Your task to perform on an android device: turn off notifications in google photos Image 0: 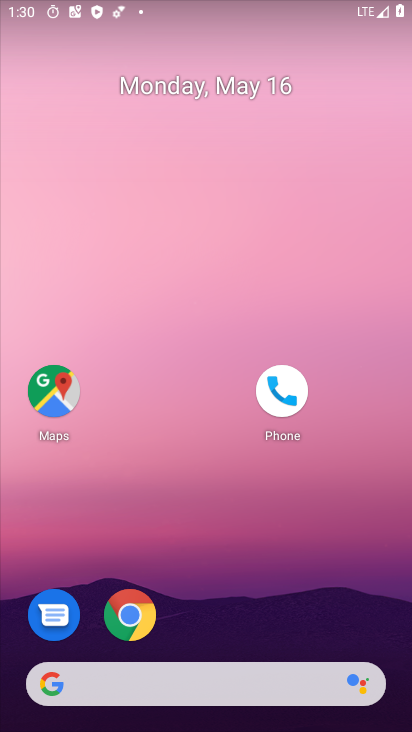
Step 0: drag from (170, 629) to (224, 89)
Your task to perform on an android device: turn off notifications in google photos Image 1: 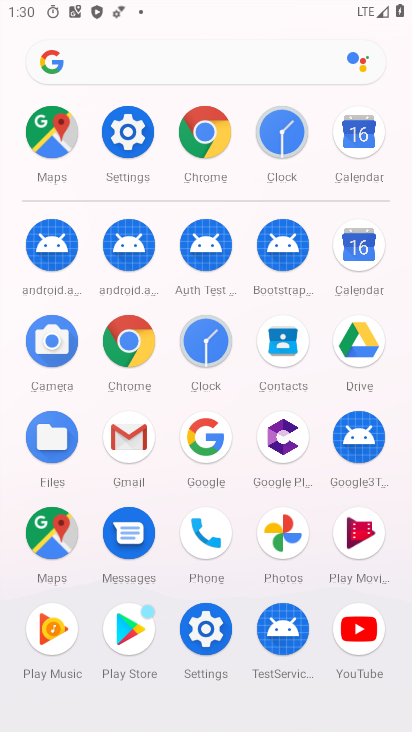
Step 1: click (291, 524)
Your task to perform on an android device: turn off notifications in google photos Image 2: 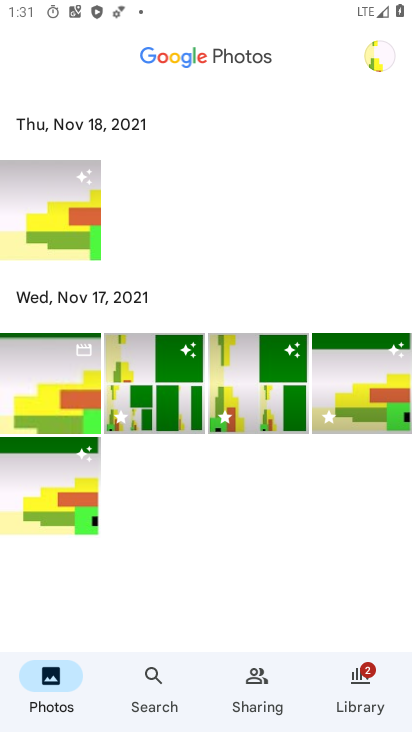
Step 2: drag from (137, 484) to (170, 440)
Your task to perform on an android device: turn off notifications in google photos Image 3: 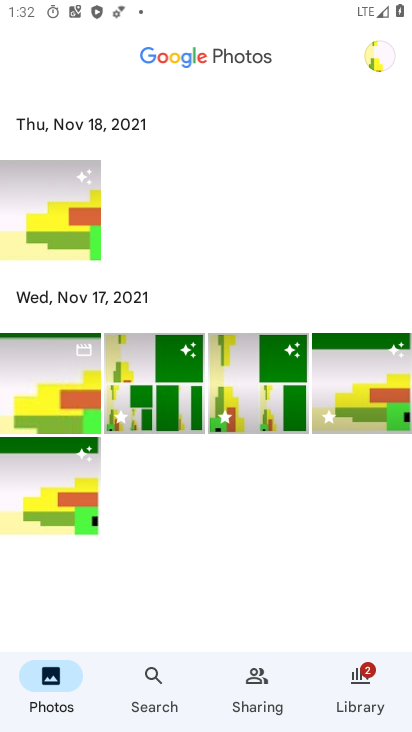
Step 3: click (380, 64)
Your task to perform on an android device: turn off notifications in google photos Image 4: 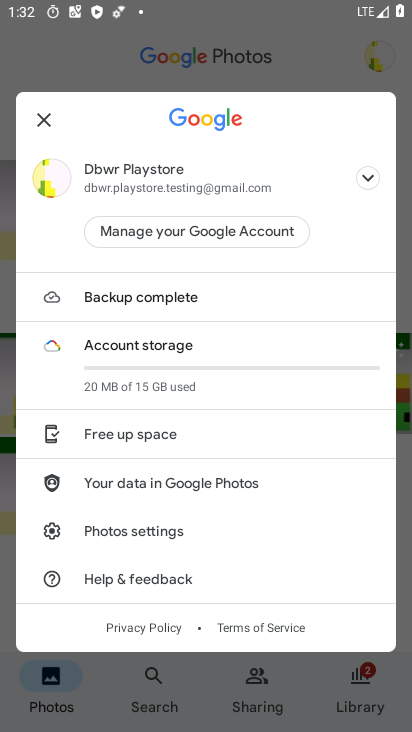
Step 4: click (245, 369)
Your task to perform on an android device: turn off notifications in google photos Image 5: 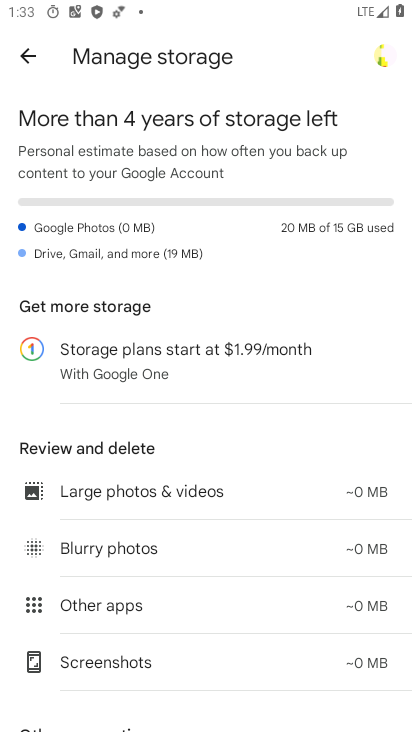
Step 5: drag from (230, 681) to (259, 345)
Your task to perform on an android device: turn off notifications in google photos Image 6: 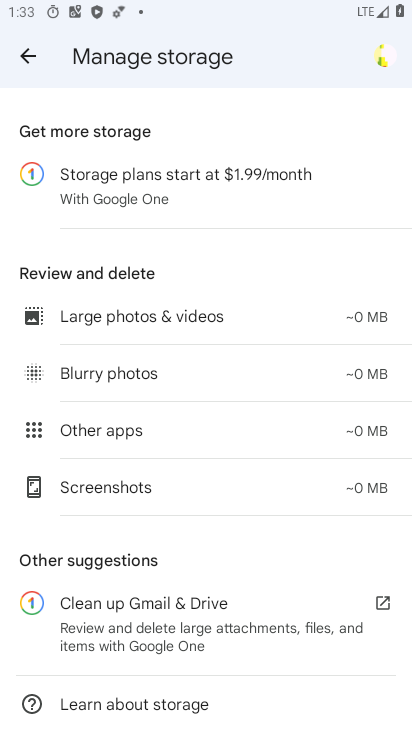
Step 6: press back button
Your task to perform on an android device: turn off notifications in google photos Image 7: 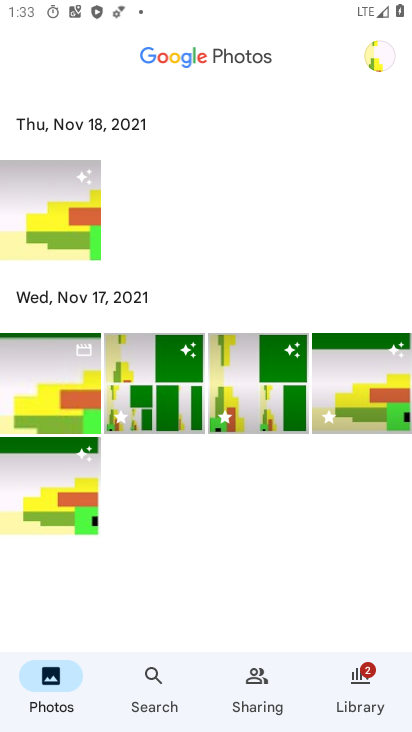
Step 7: click (377, 40)
Your task to perform on an android device: turn off notifications in google photos Image 8: 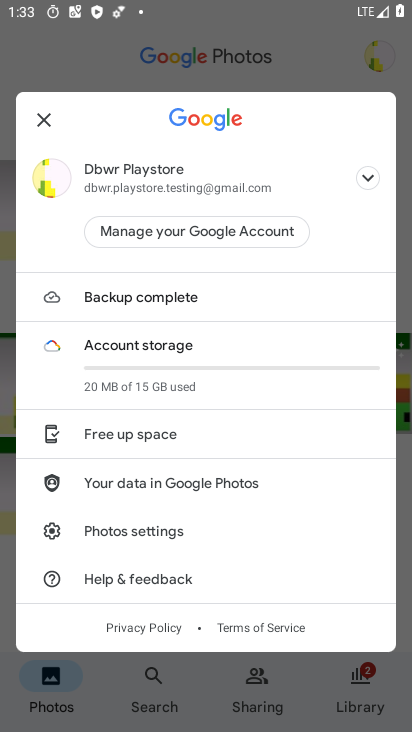
Step 8: click (136, 523)
Your task to perform on an android device: turn off notifications in google photos Image 9: 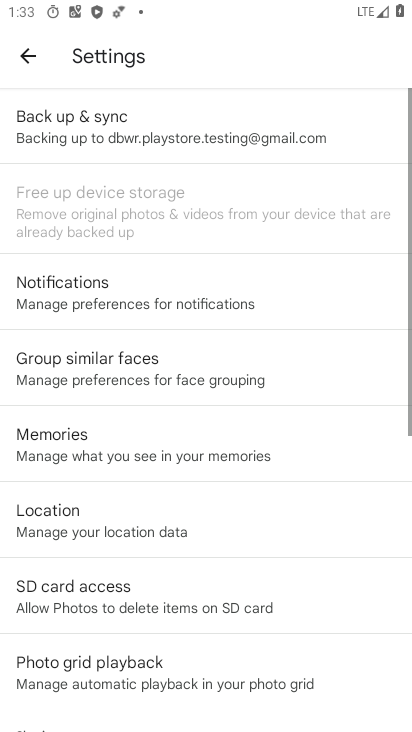
Step 9: drag from (145, 587) to (161, 409)
Your task to perform on an android device: turn off notifications in google photos Image 10: 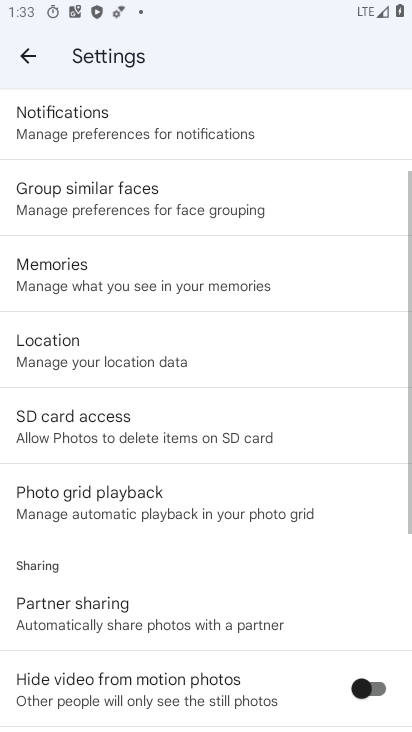
Step 10: click (122, 146)
Your task to perform on an android device: turn off notifications in google photos Image 11: 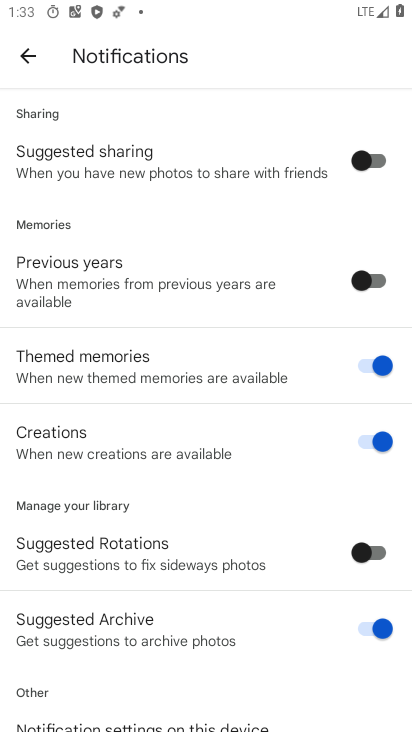
Step 11: task complete